Your task to perform on an android device: toggle pop-ups in chrome Image 0: 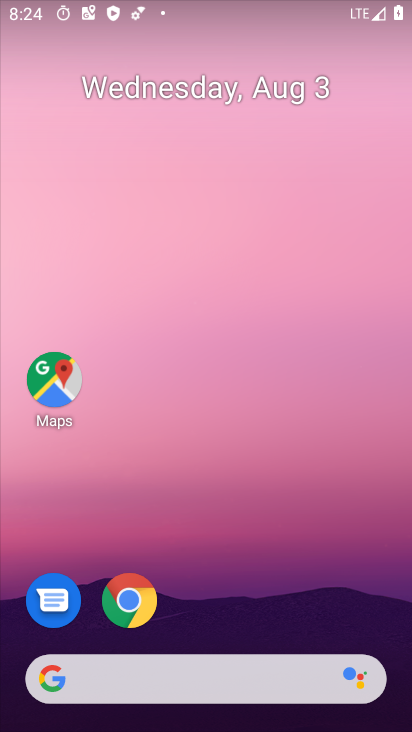
Step 0: click (139, 600)
Your task to perform on an android device: toggle pop-ups in chrome Image 1: 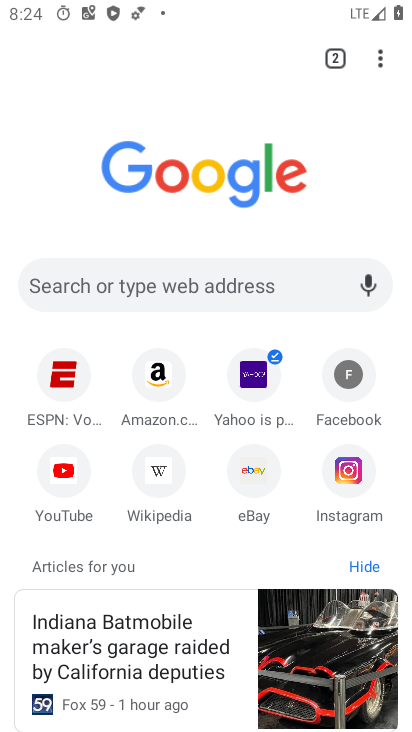
Step 1: click (375, 53)
Your task to perform on an android device: toggle pop-ups in chrome Image 2: 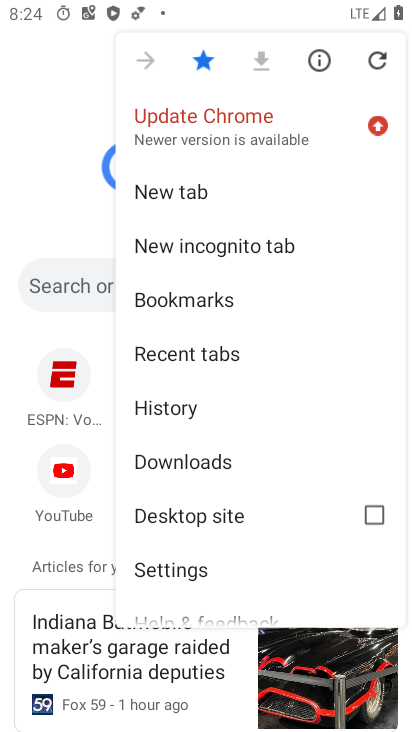
Step 2: click (173, 572)
Your task to perform on an android device: toggle pop-ups in chrome Image 3: 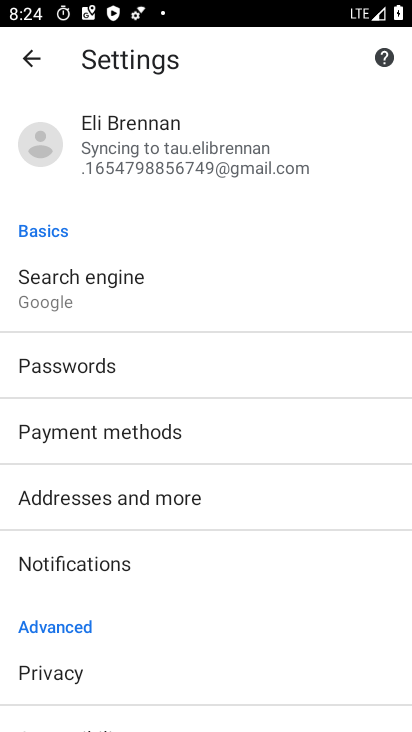
Step 3: drag from (100, 600) to (136, 233)
Your task to perform on an android device: toggle pop-ups in chrome Image 4: 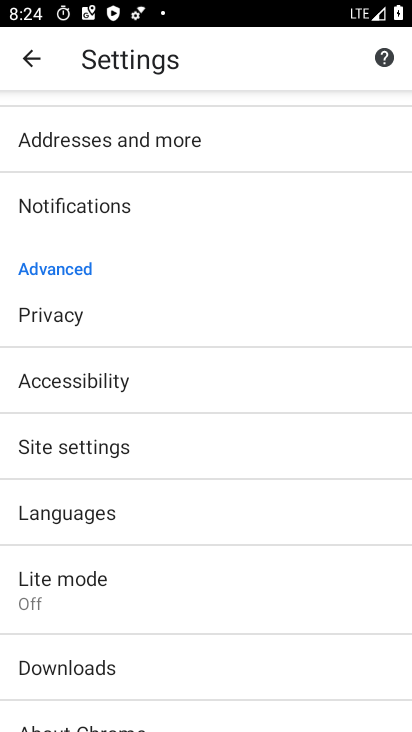
Step 4: click (83, 454)
Your task to perform on an android device: toggle pop-ups in chrome Image 5: 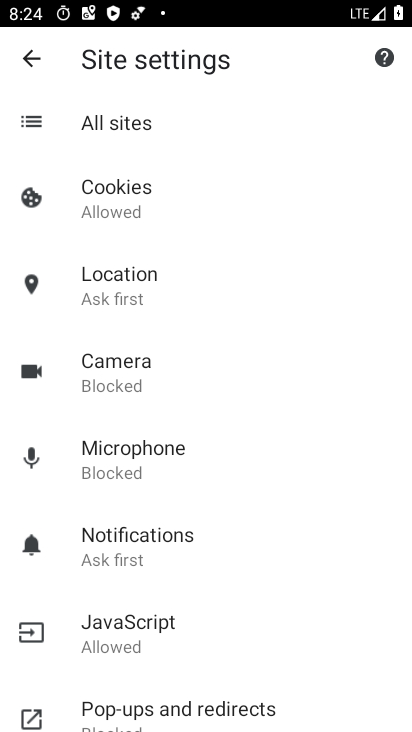
Step 5: click (143, 701)
Your task to perform on an android device: toggle pop-ups in chrome Image 6: 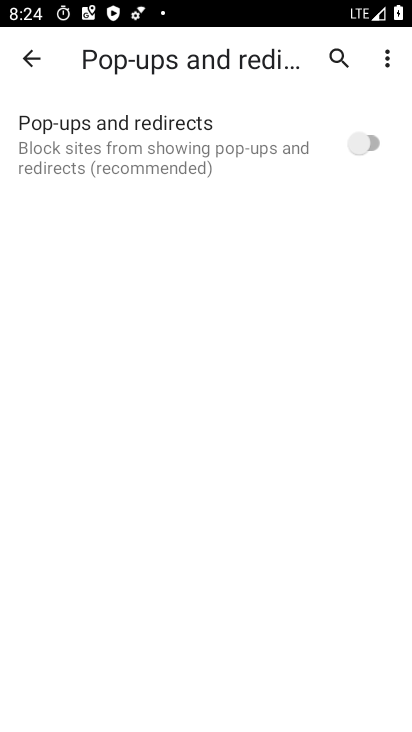
Step 6: click (386, 143)
Your task to perform on an android device: toggle pop-ups in chrome Image 7: 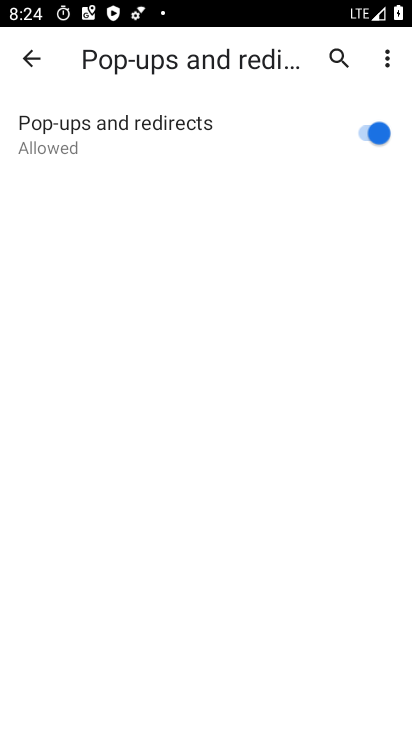
Step 7: task complete